Your task to perform on an android device: find snoozed emails in the gmail app Image 0: 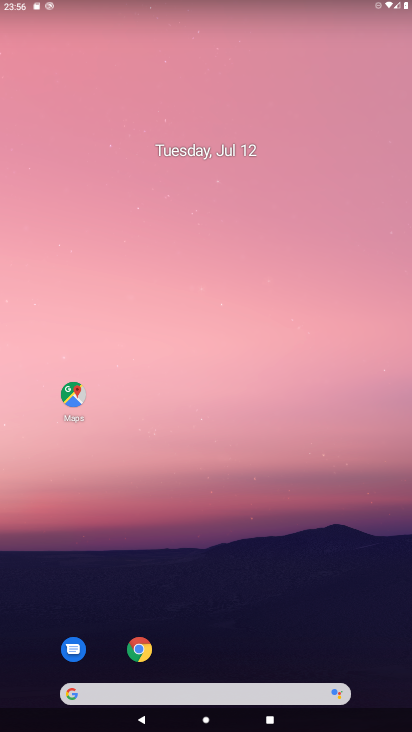
Step 0: drag from (369, 690) to (336, 309)
Your task to perform on an android device: find snoozed emails in the gmail app Image 1: 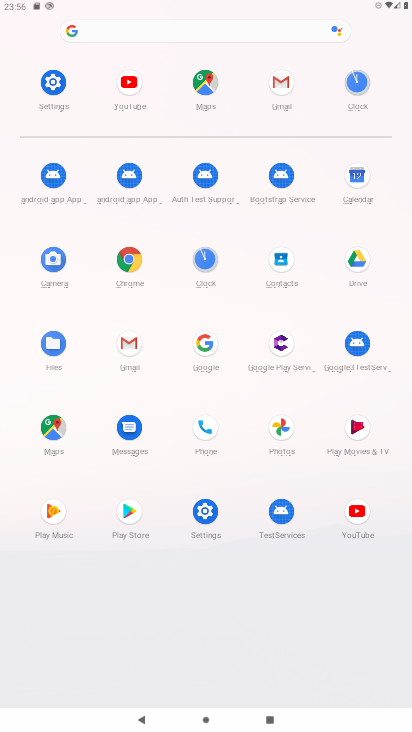
Step 1: click (128, 343)
Your task to perform on an android device: find snoozed emails in the gmail app Image 2: 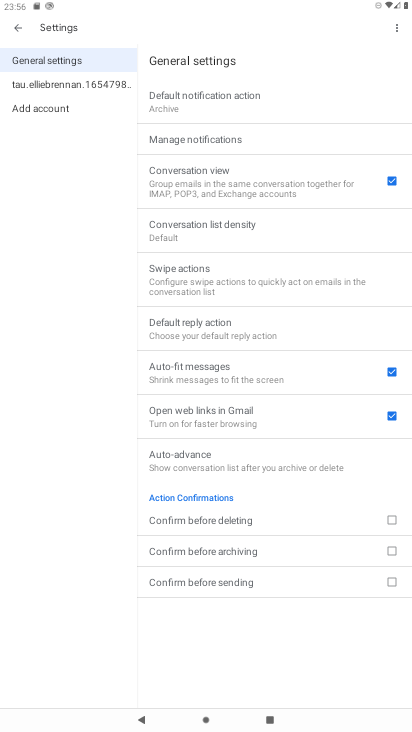
Step 2: press back button
Your task to perform on an android device: find snoozed emails in the gmail app Image 3: 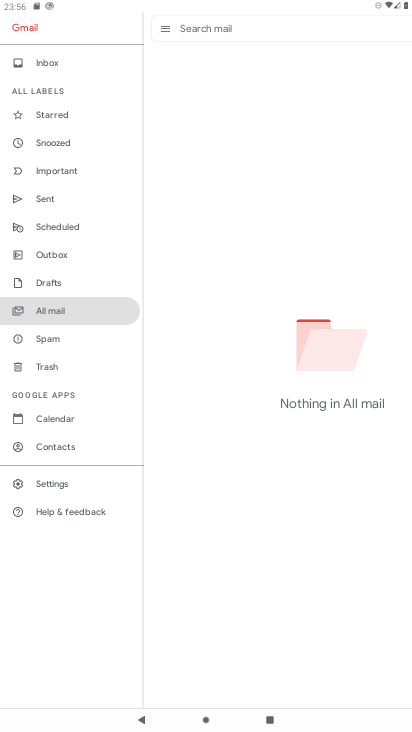
Step 3: click (53, 146)
Your task to perform on an android device: find snoozed emails in the gmail app Image 4: 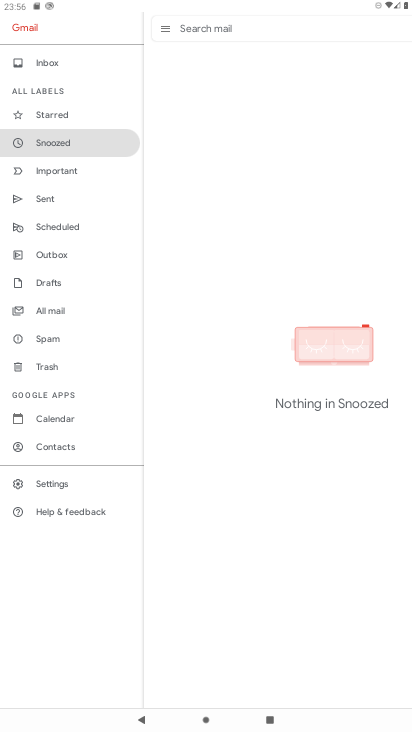
Step 4: task complete